Your task to perform on an android device: turn off picture-in-picture Image 0: 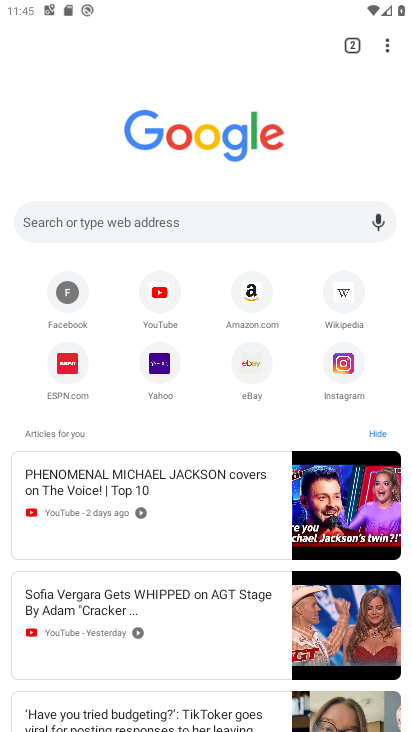
Step 0: press home button
Your task to perform on an android device: turn off picture-in-picture Image 1: 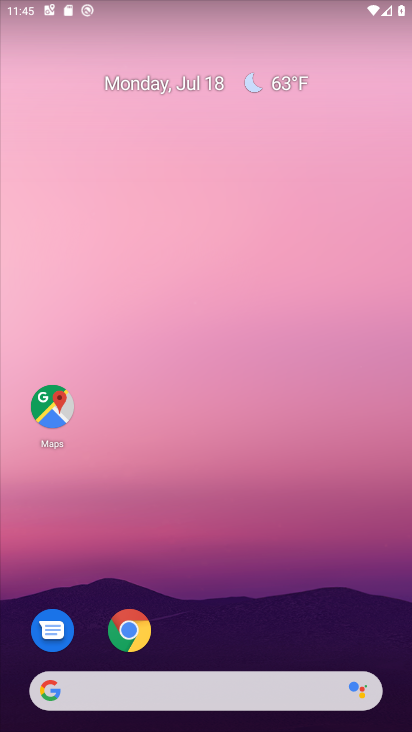
Step 1: click (129, 635)
Your task to perform on an android device: turn off picture-in-picture Image 2: 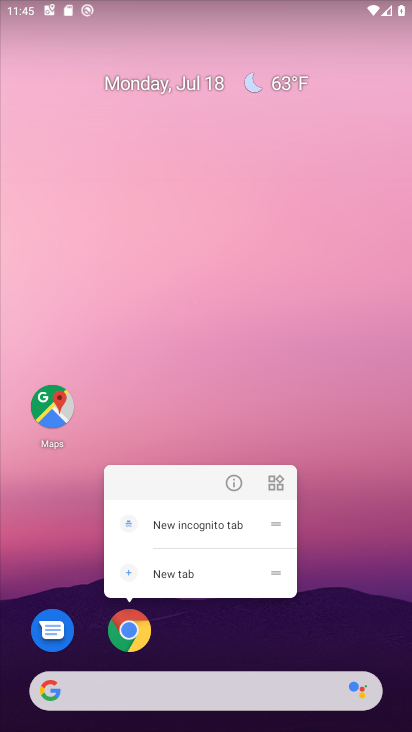
Step 2: click (236, 481)
Your task to perform on an android device: turn off picture-in-picture Image 3: 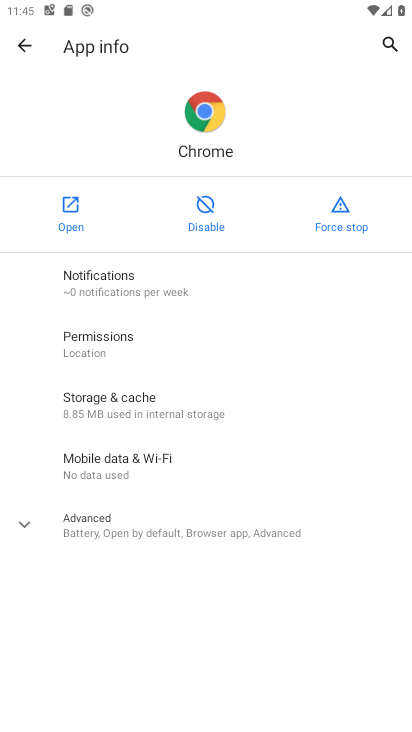
Step 3: click (56, 528)
Your task to perform on an android device: turn off picture-in-picture Image 4: 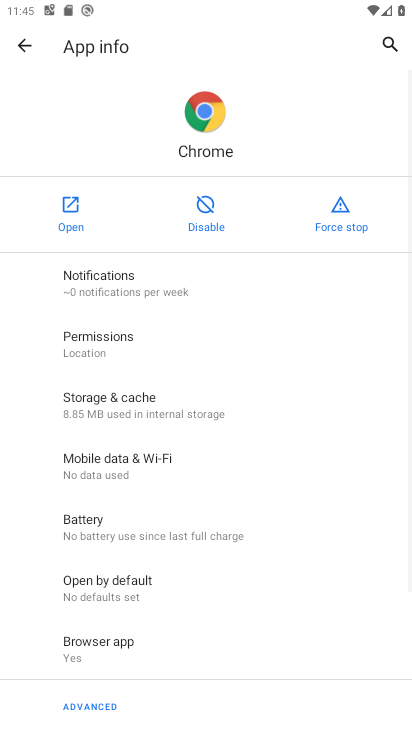
Step 4: drag from (132, 653) to (147, 254)
Your task to perform on an android device: turn off picture-in-picture Image 5: 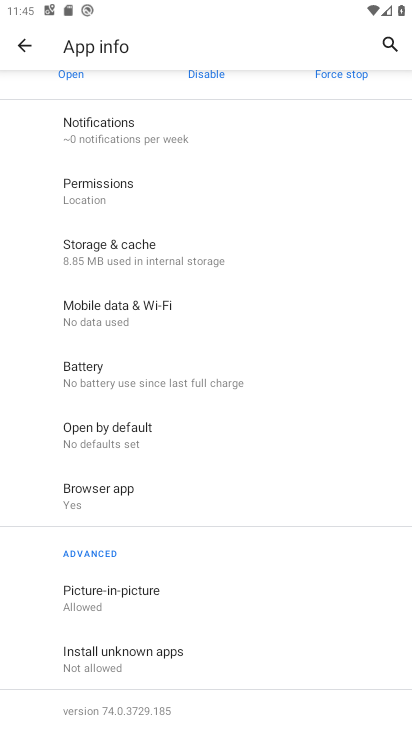
Step 5: click (87, 598)
Your task to perform on an android device: turn off picture-in-picture Image 6: 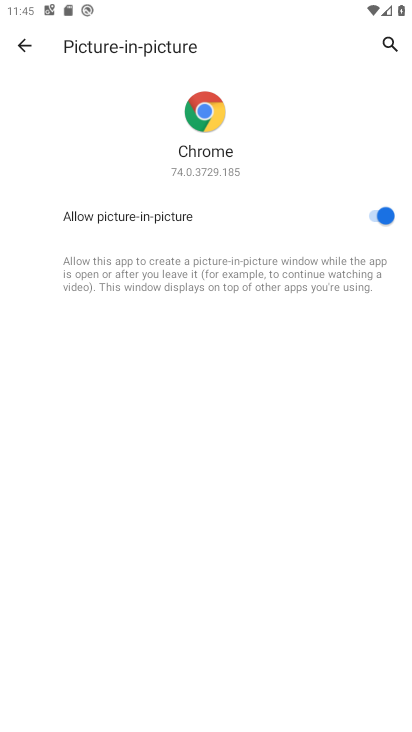
Step 6: click (387, 211)
Your task to perform on an android device: turn off picture-in-picture Image 7: 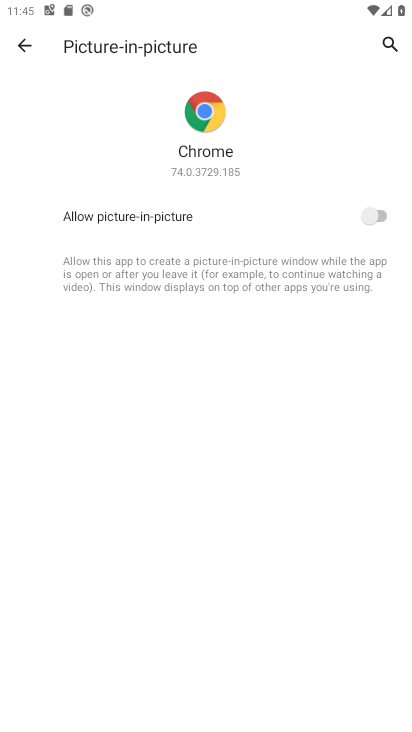
Step 7: task complete